Your task to perform on an android device: What's the weather like in Chicago? Image 0: 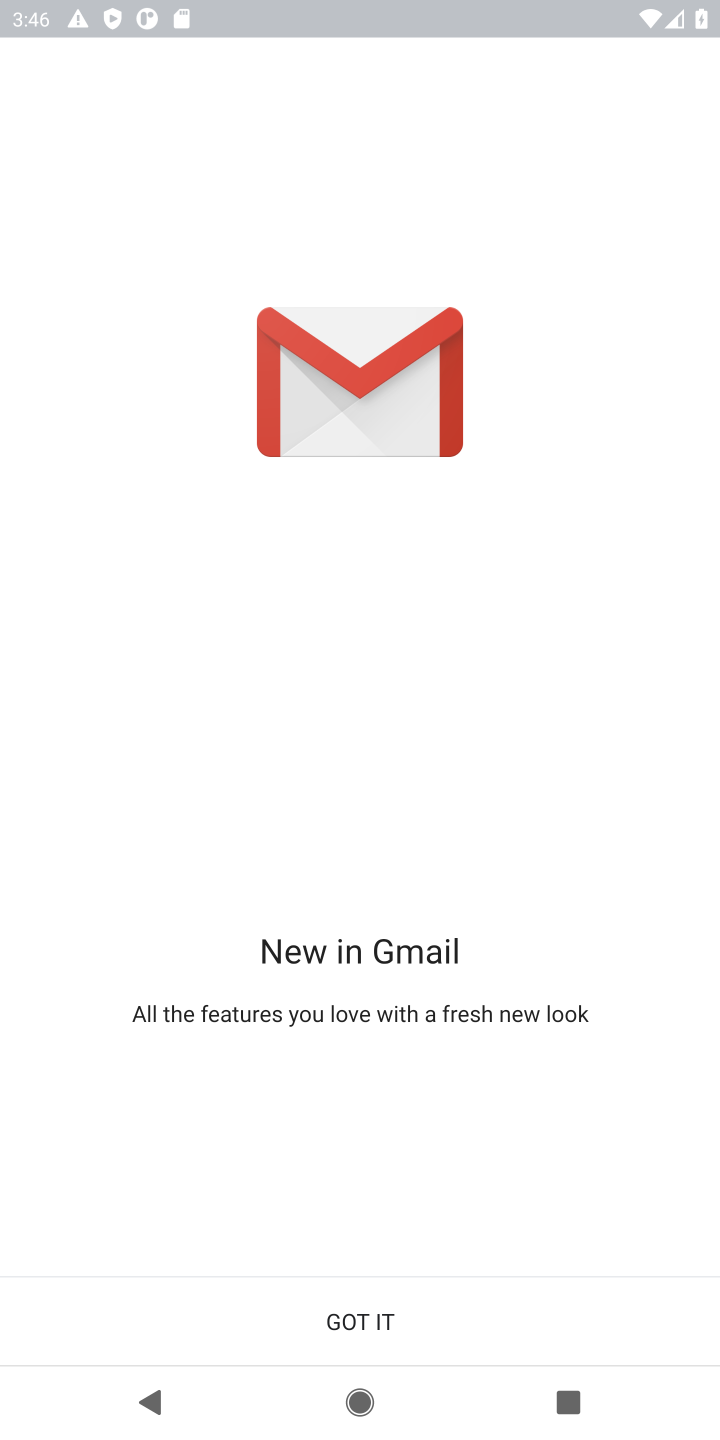
Step 0: press home button
Your task to perform on an android device: What's the weather like in Chicago? Image 1: 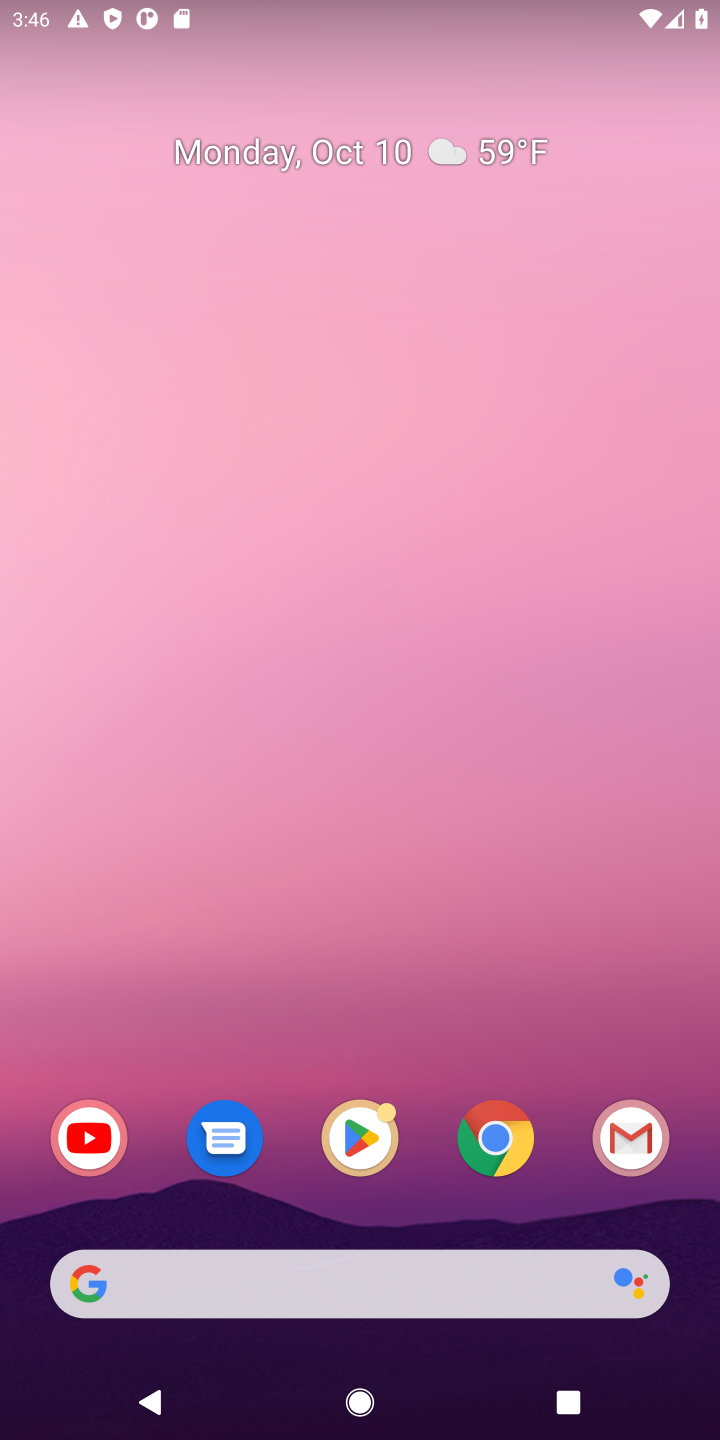
Step 1: drag from (301, 1095) to (417, 182)
Your task to perform on an android device: What's the weather like in Chicago? Image 2: 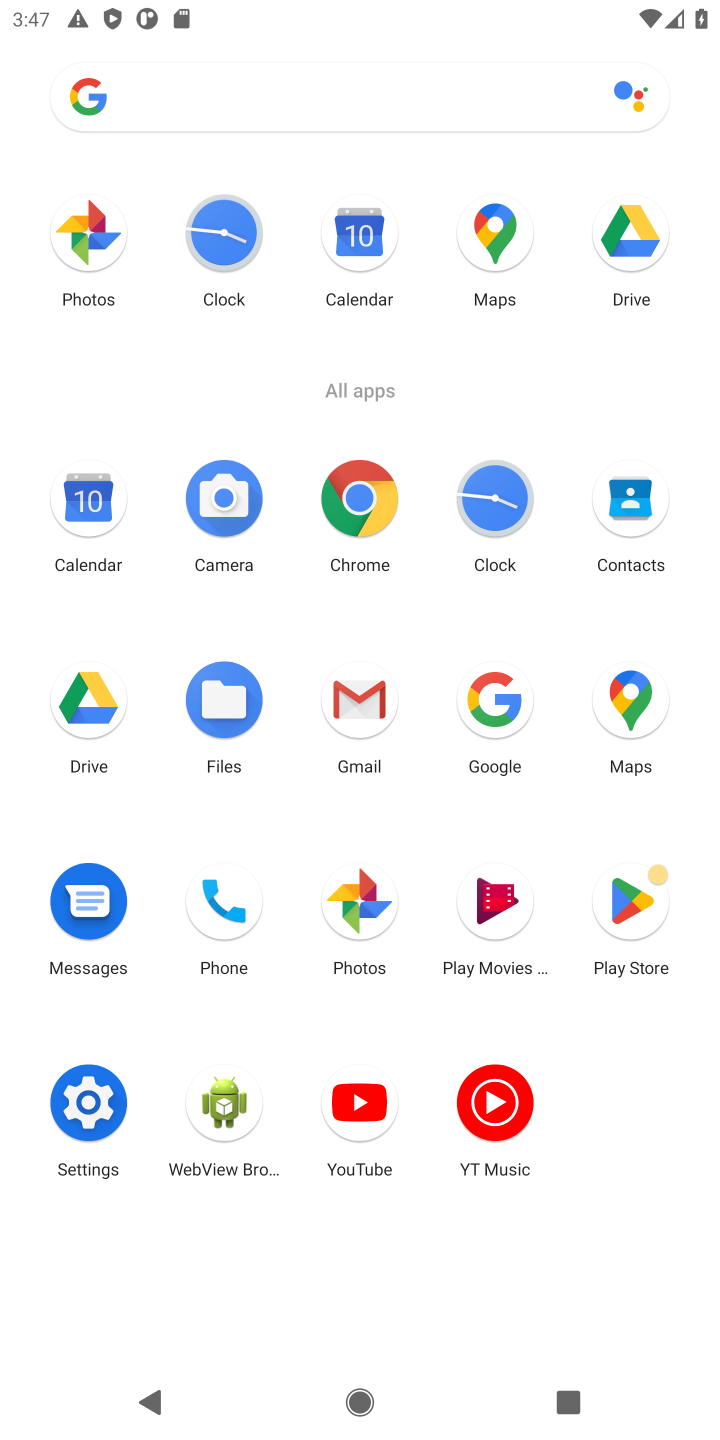
Step 2: click (498, 710)
Your task to perform on an android device: What's the weather like in Chicago? Image 3: 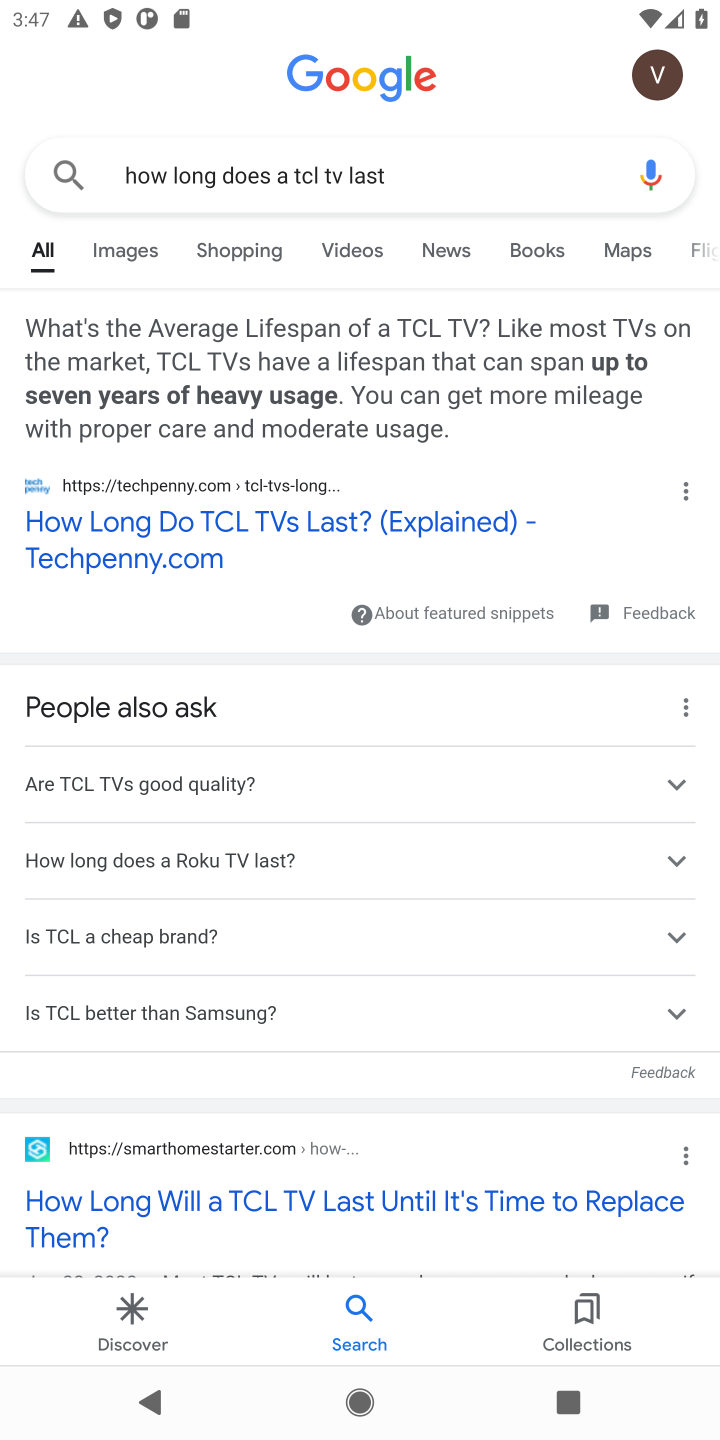
Step 3: click (256, 177)
Your task to perform on an android device: What's the weather like in Chicago? Image 4: 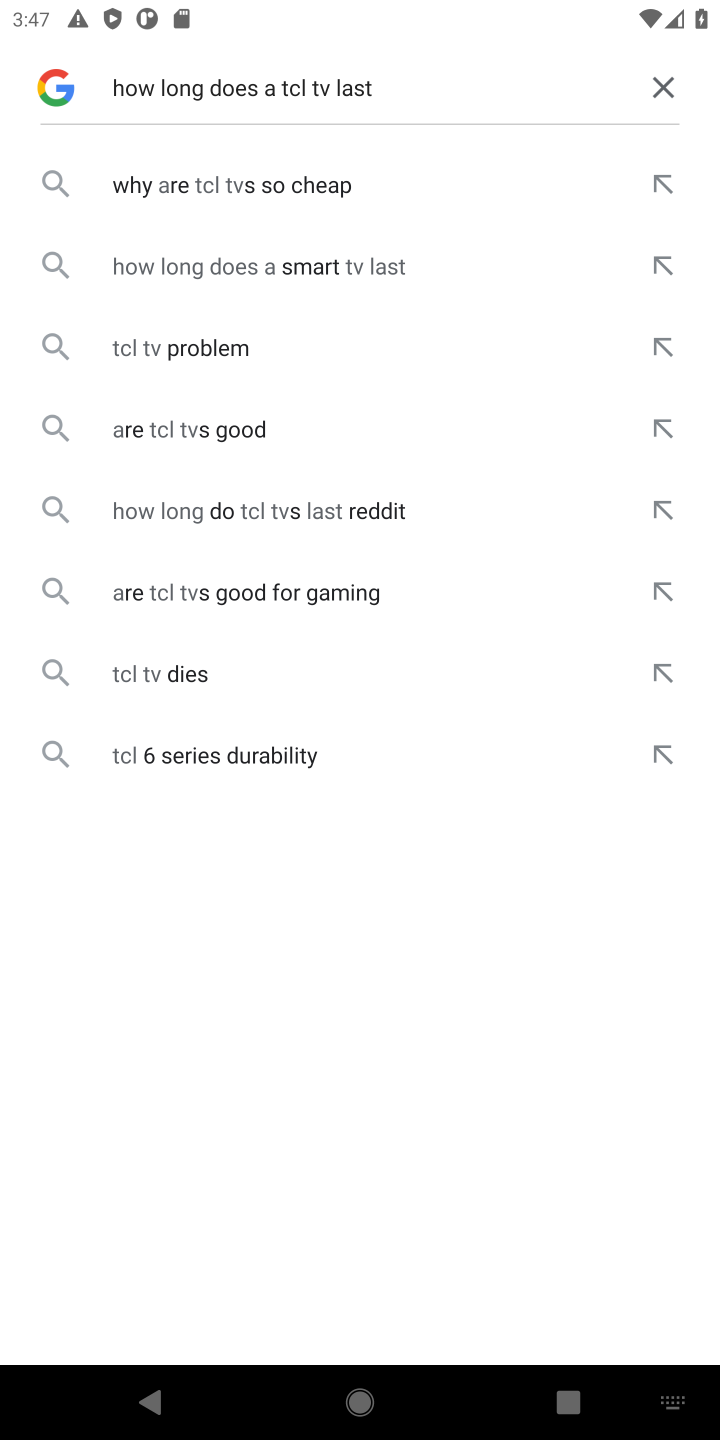
Step 4: click (654, 94)
Your task to perform on an android device: What's the weather like in Chicago? Image 5: 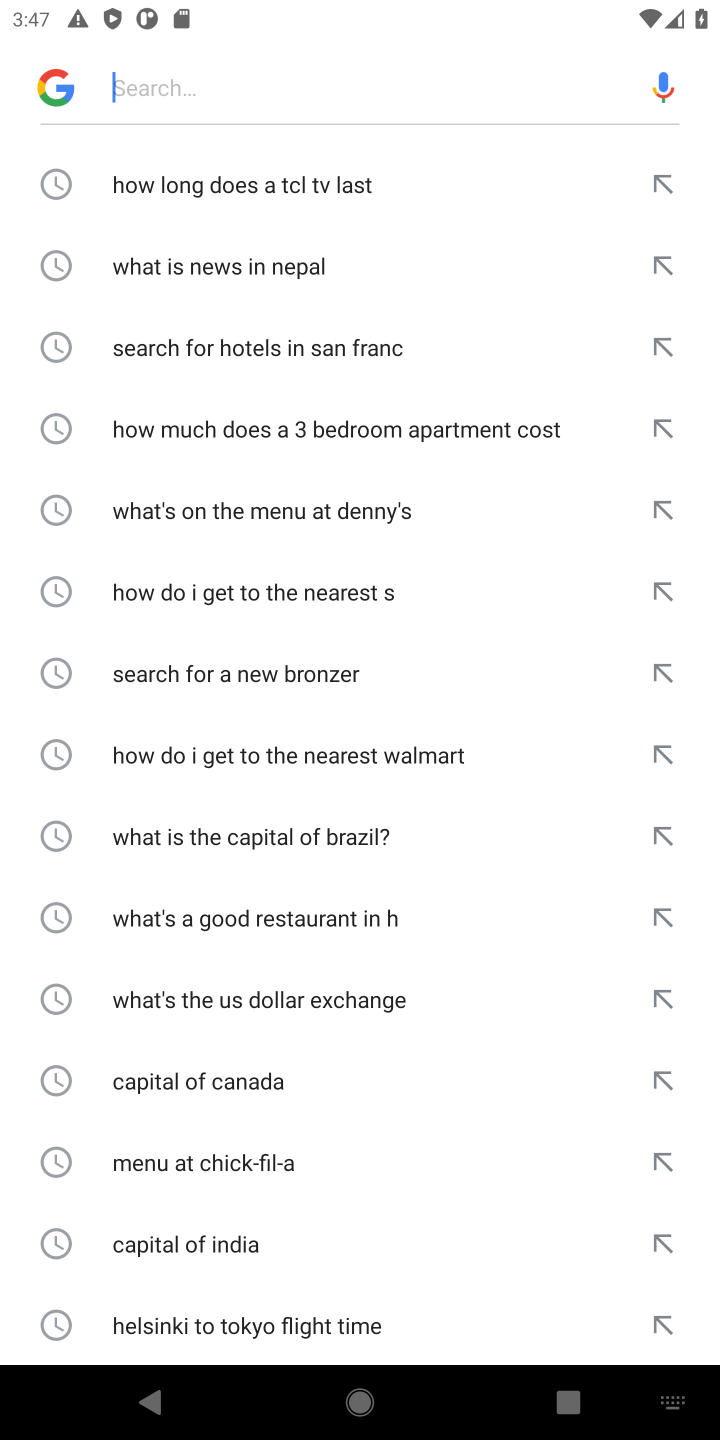
Step 5: type "What's the weather like in Chicago?"
Your task to perform on an android device: What's the weather like in Chicago? Image 6: 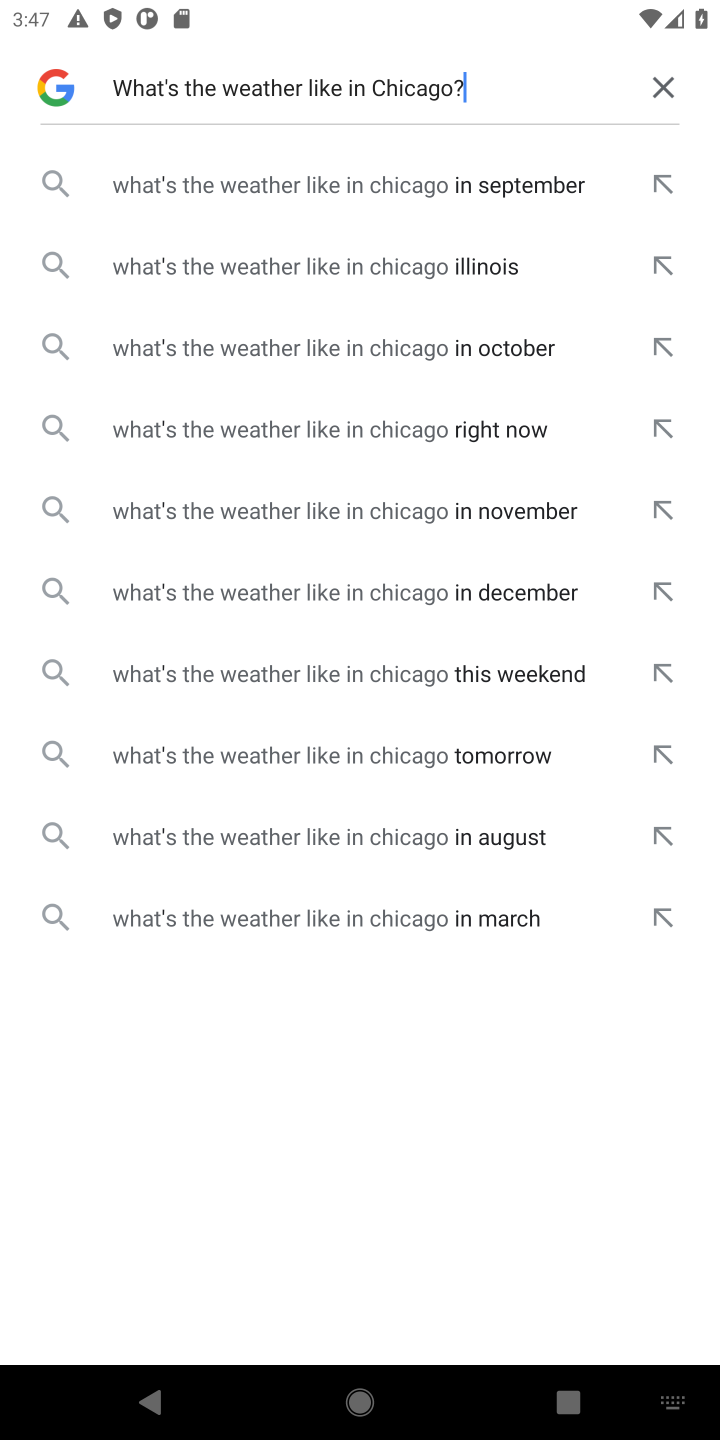
Step 6: click (177, 184)
Your task to perform on an android device: What's the weather like in Chicago? Image 7: 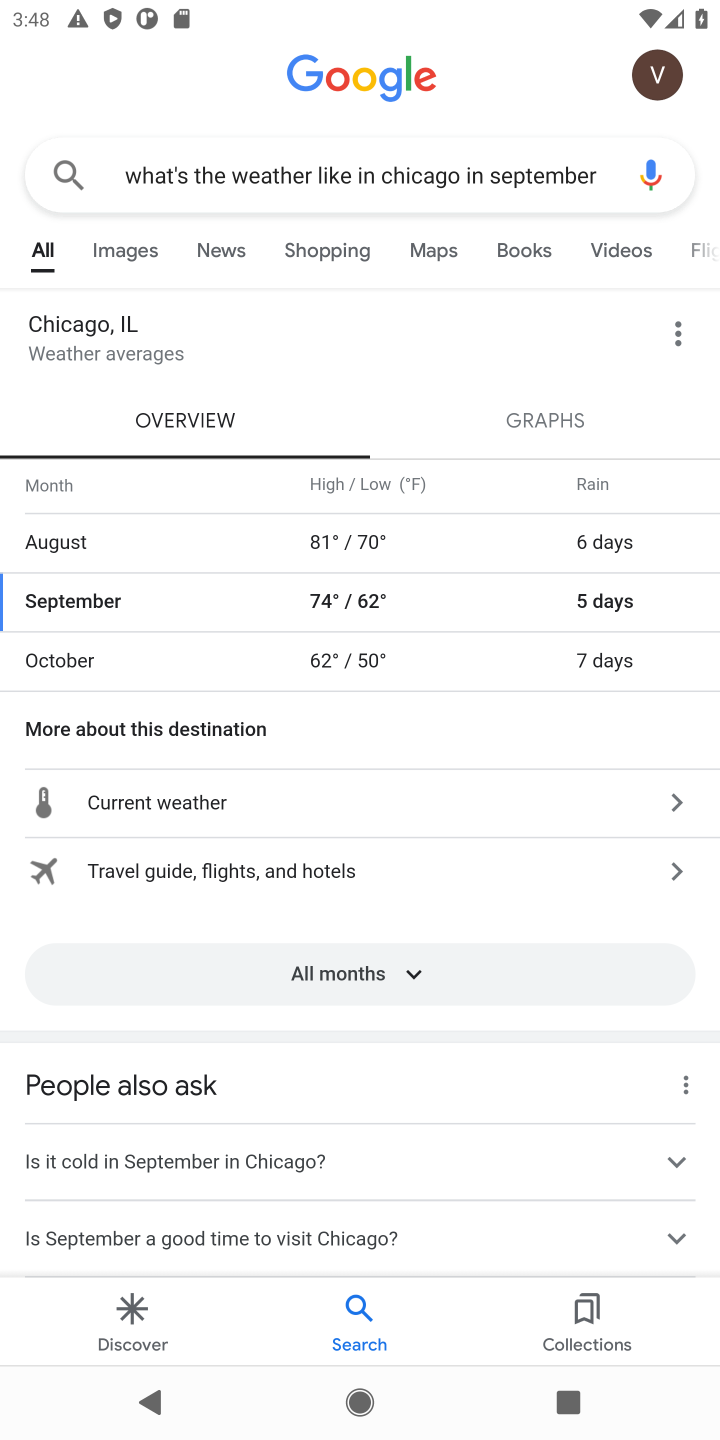
Step 7: click (312, 973)
Your task to perform on an android device: What's the weather like in Chicago? Image 8: 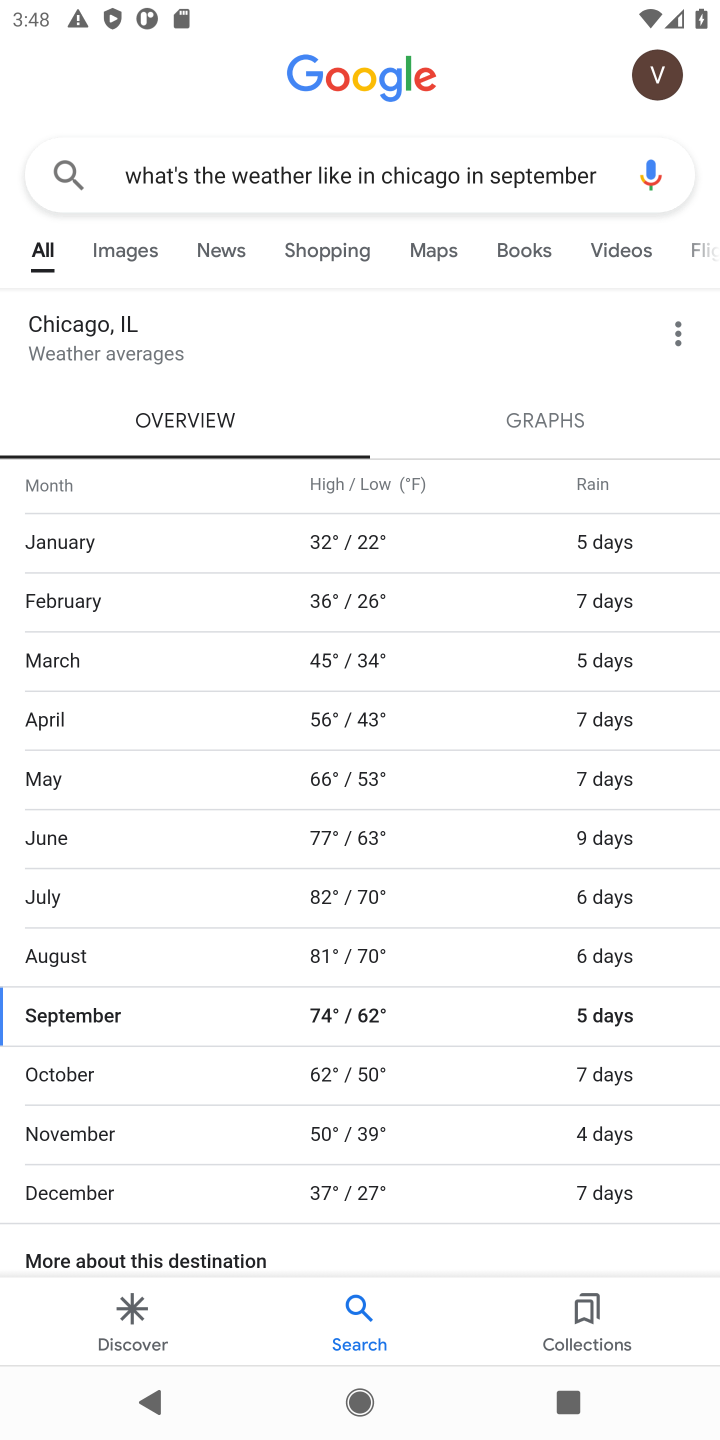
Step 8: task complete